Your task to perform on an android device: Open Google Maps and go to "Timeline" Image 0: 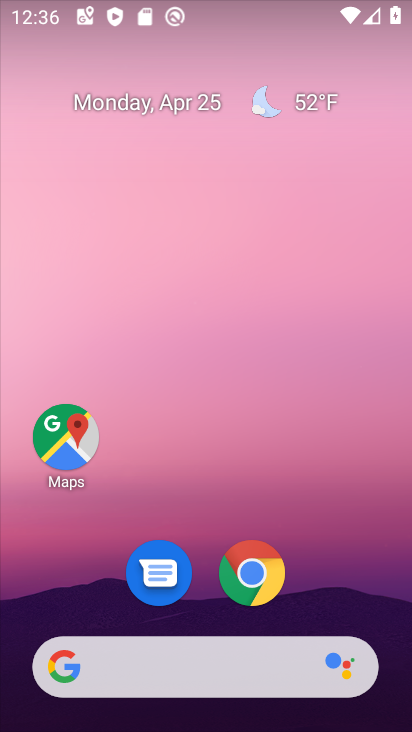
Step 0: drag from (335, 601) to (248, 153)
Your task to perform on an android device: Open Google Maps and go to "Timeline" Image 1: 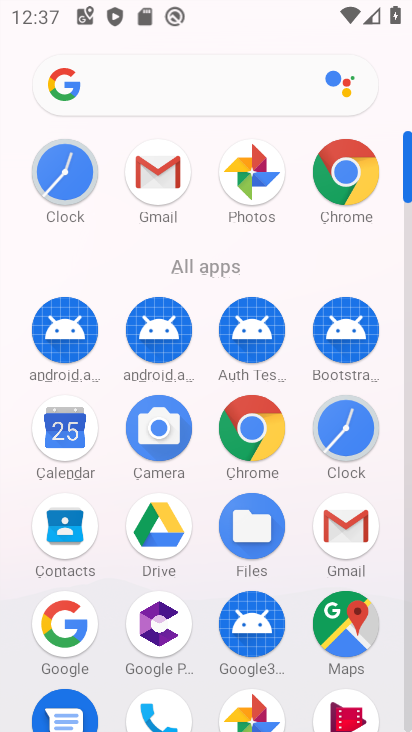
Step 1: click (332, 625)
Your task to perform on an android device: Open Google Maps and go to "Timeline" Image 2: 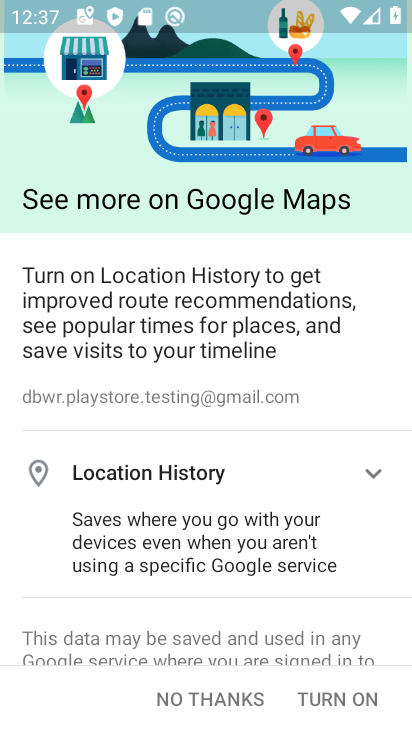
Step 2: click (319, 691)
Your task to perform on an android device: Open Google Maps and go to "Timeline" Image 3: 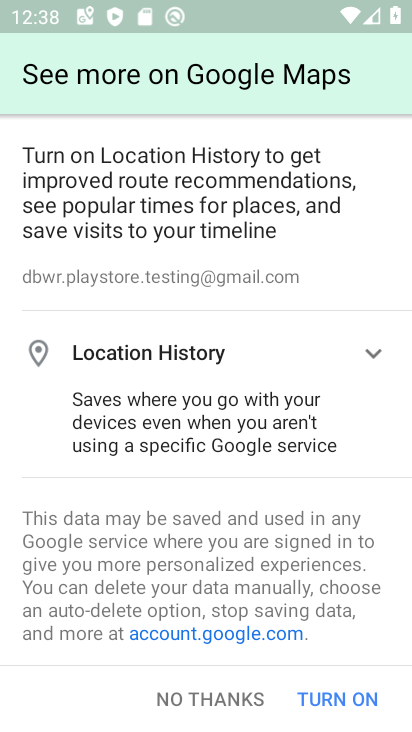
Step 3: click (319, 697)
Your task to perform on an android device: Open Google Maps and go to "Timeline" Image 4: 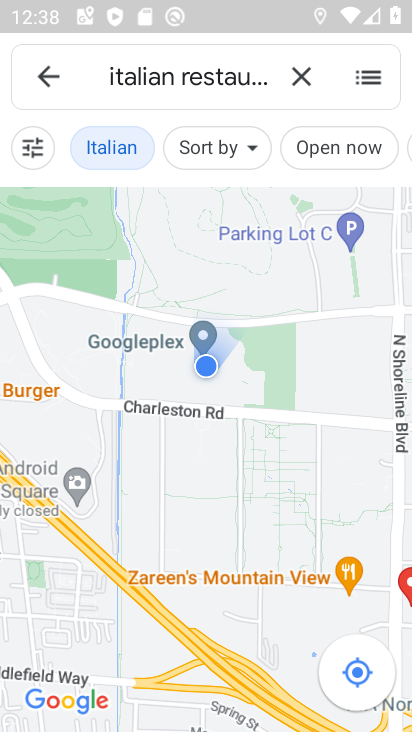
Step 4: click (58, 82)
Your task to perform on an android device: Open Google Maps and go to "Timeline" Image 5: 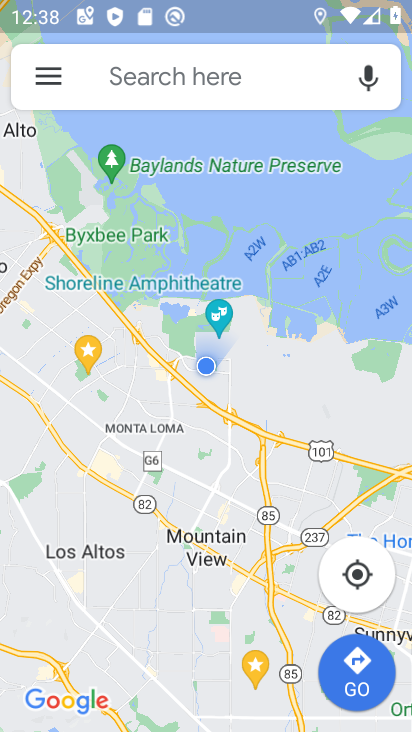
Step 5: click (43, 87)
Your task to perform on an android device: Open Google Maps and go to "Timeline" Image 6: 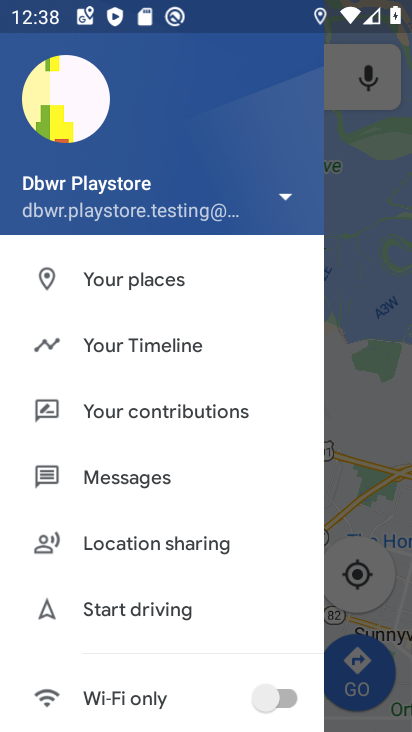
Step 6: click (155, 334)
Your task to perform on an android device: Open Google Maps and go to "Timeline" Image 7: 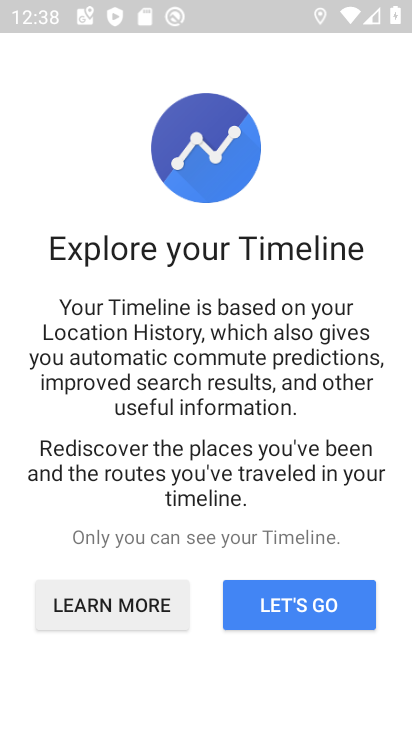
Step 7: click (291, 600)
Your task to perform on an android device: Open Google Maps and go to "Timeline" Image 8: 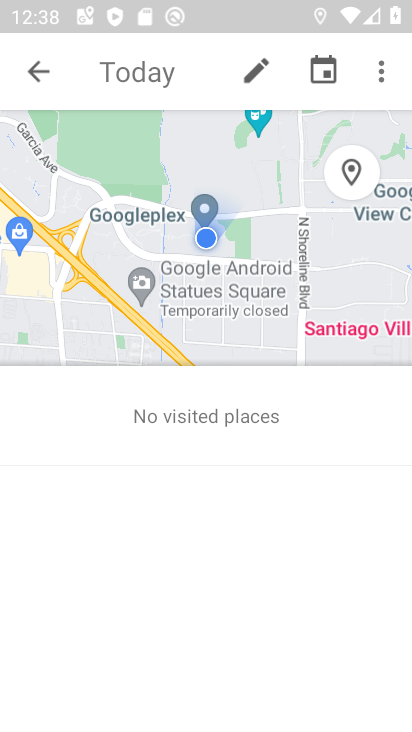
Step 8: task complete